Your task to perform on an android device: toggle show notifications on the lock screen Image 0: 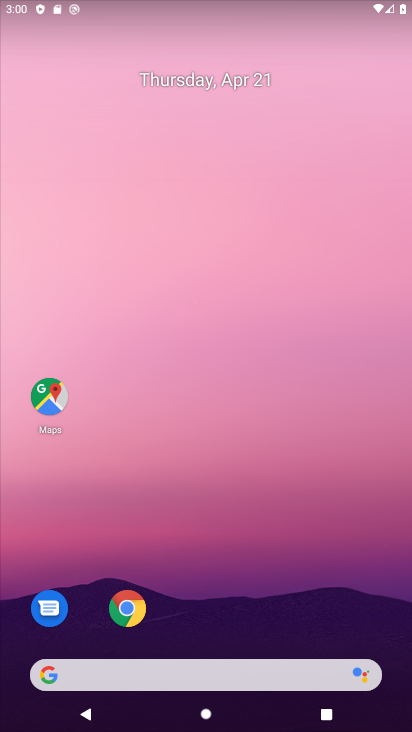
Step 0: click (231, 175)
Your task to perform on an android device: toggle show notifications on the lock screen Image 1: 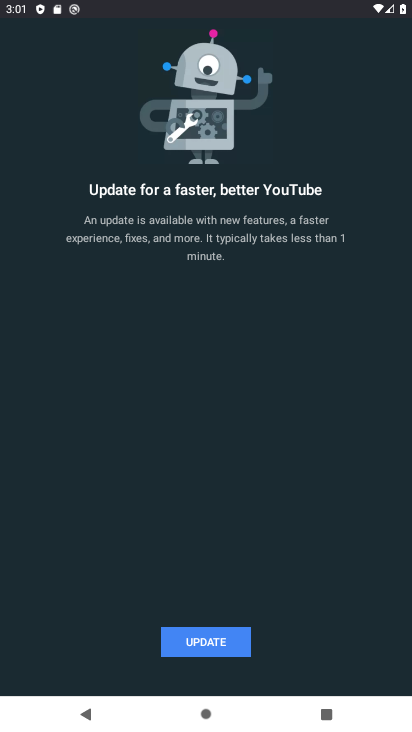
Step 1: press back button
Your task to perform on an android device: toggle show notifications on the lock screen Image 2: 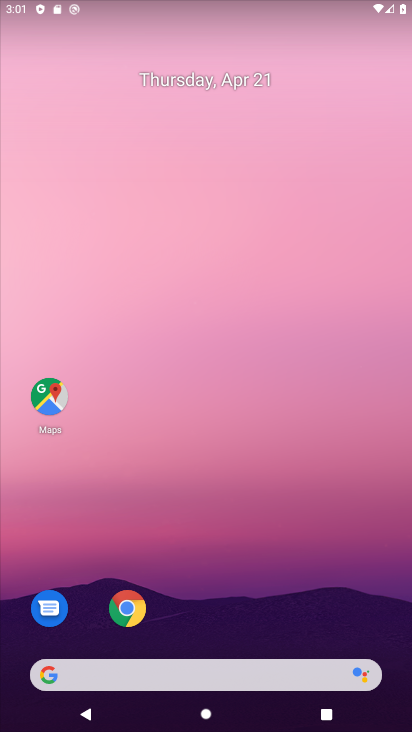
Step 2: drag from (217, 605) to (231, 186)
Your task to perform on an android device: toggle show notifications on the lock screen Image 3: 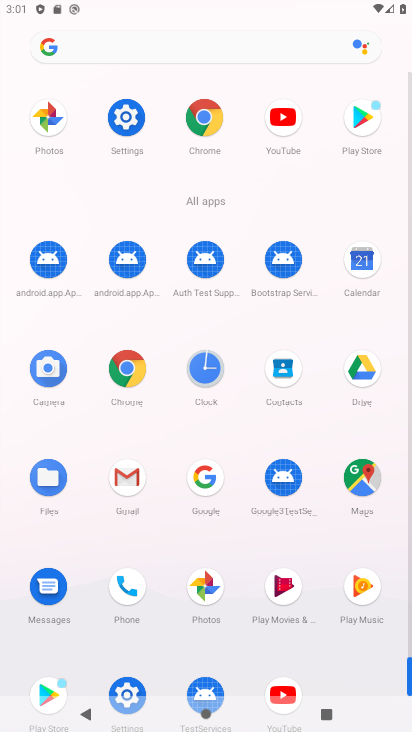
Step 3: click (121, 129)
Your task to perform on an android device: toggle show notifications on the lock screen Image 4: 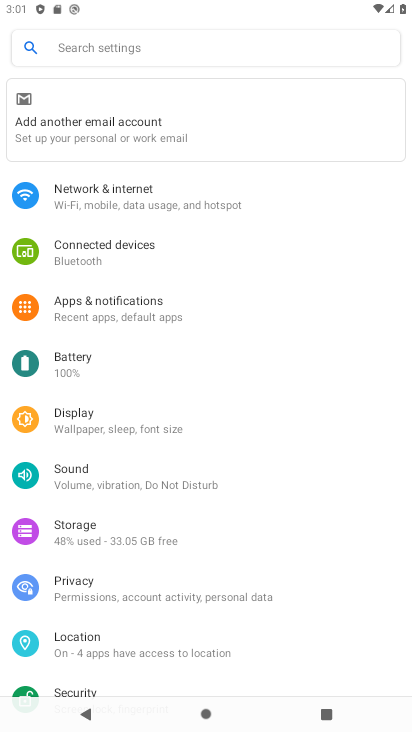
Step 4: click (95, 320)
Your task to perform on an android device: toggle show notifications on the lock screen Image 5: 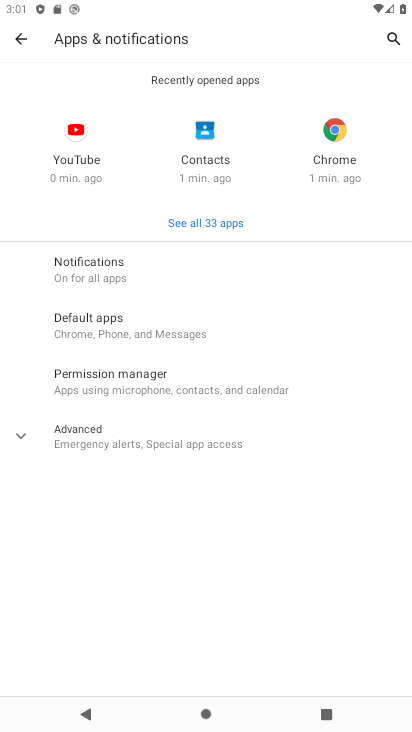
Step 5: click (108, 281)
Your task to perform on an android device: toggle show notifications on the lock screen Image 6: 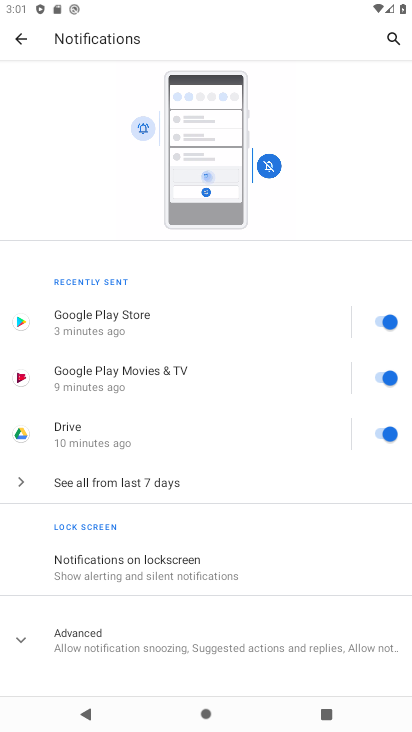
Step 6: drag from (159, 603) to (280, 311)
Your task to perform on an android device: toggle show notifications on the lock screen Image 7: 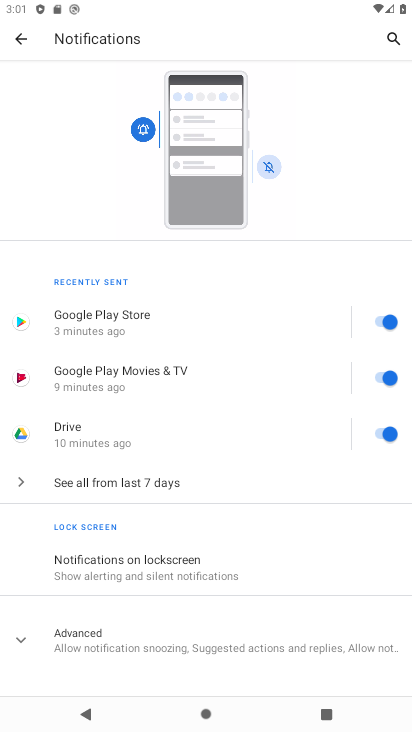
Step 7: click (137, 580)
Your task to perform on an android device: toggle show notifications on the lock screen Image 8: 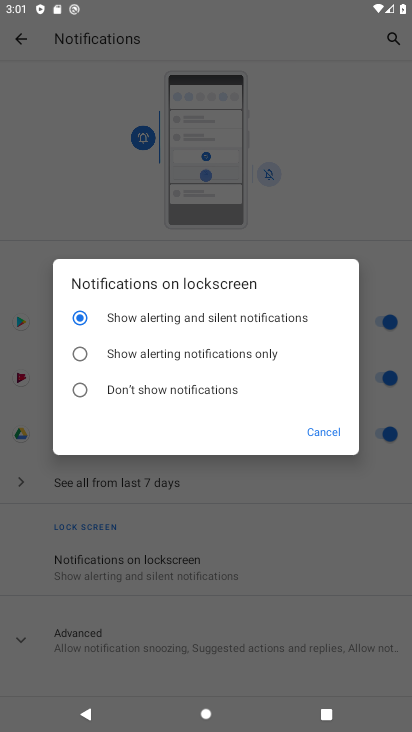
Step 8: click (82, 388)
Your task to perform on an android device: toggle show notifications on the lock screen Image 9: 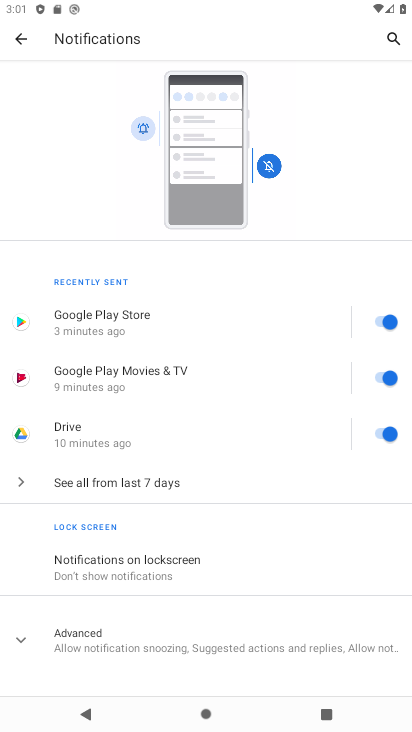
Step 9: task complete